Your task to perform on an android device: Search for sushi restaurants on Maps Image 0: 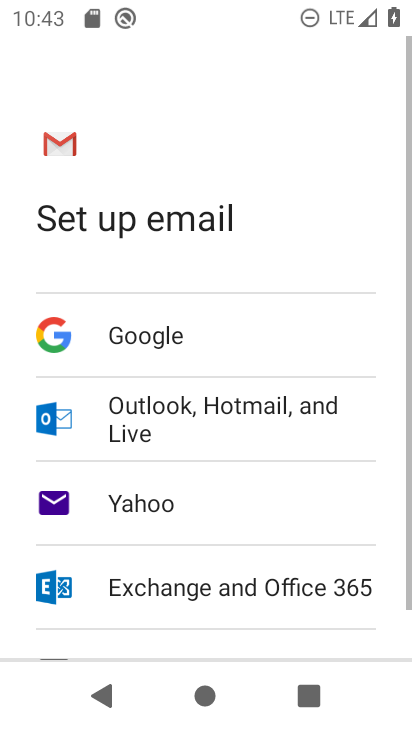
Step 0: press home button
Your task to perform on an android device: Search for sushi restaurants on Maps Image 1: 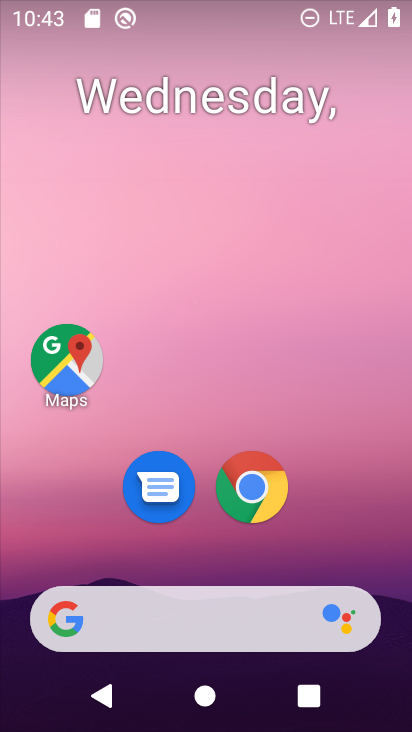
Step 1: click (55, 355)
Your task to perform on an android device: Search for sushi restaurants on Maps Image 2: 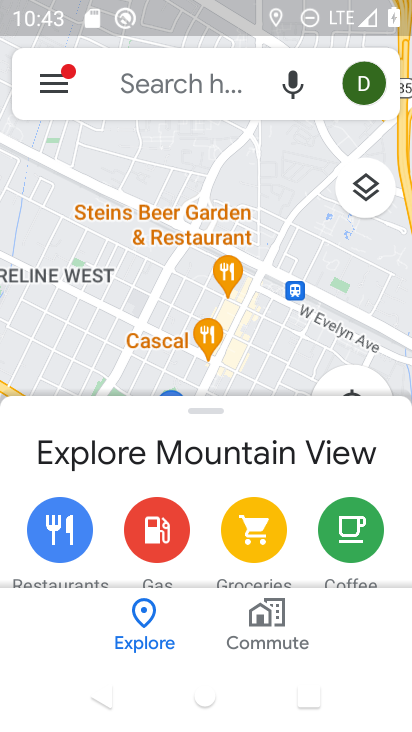
Step 2: click (53, 81)
Your task to perform on an android device: Search for sushi restaurants on Maps Image 3: 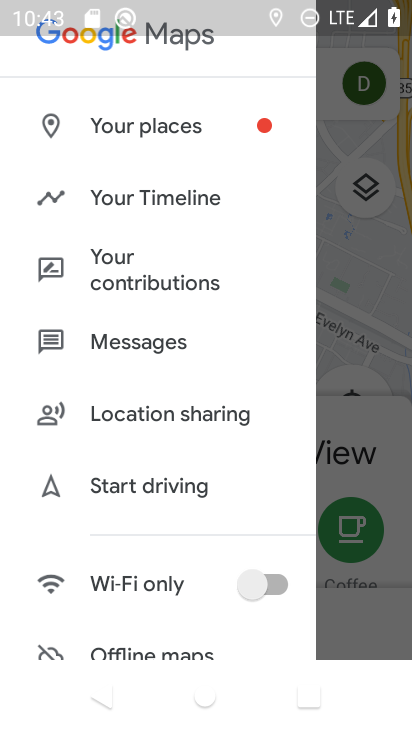
Step 3: drag from (165, 511) to (150, 156)
Your task to perform on an android device: Search for sushi restaurants on Maps Image 4: 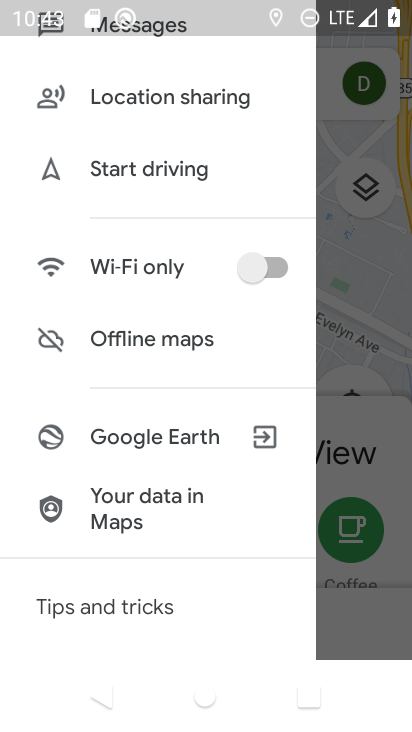
Step 4: drag from (156, 527) to (154, 185)
Your task to perform on an android device: Search for sushi restaurants on Maps Image 5: 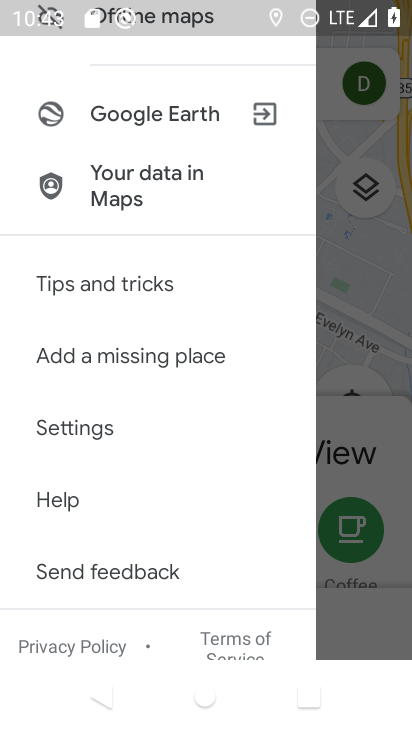
Step 5: drag from (154, 511) to (154, 237)
Your task to perform on an android device: Search for sushi restaurants on Maps Image 6: 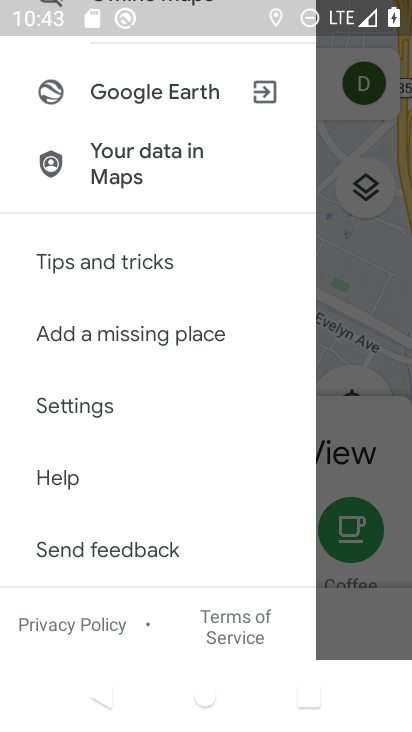
Step 6: click (66, 405)
Your task to perform on an android device: Search for sushi restaurants on Maps Image 7: 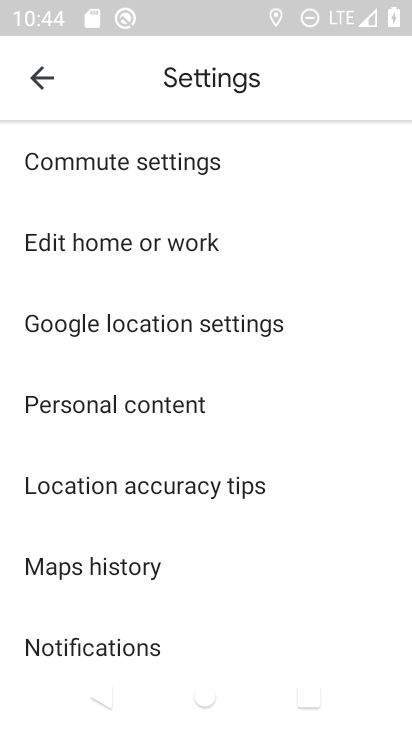
Step 7: click (49, 74)
Your task to perform on an android device: Search for sushi restaurants on Maps Image 8: 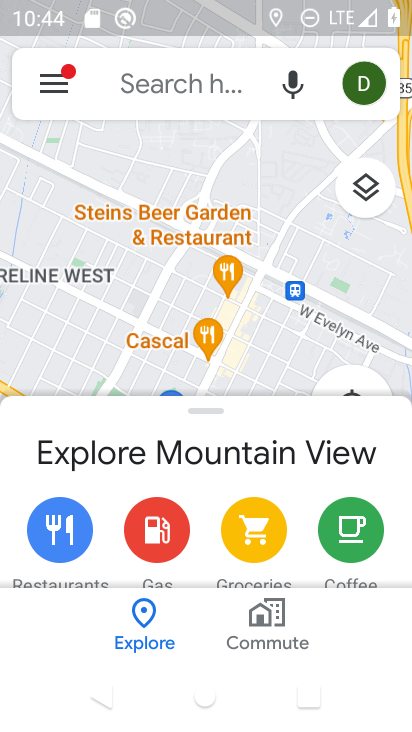
Step 8: click (140, 92)
Your task to perform on an android device: Search for sushi restaurants on Maps Image 9: 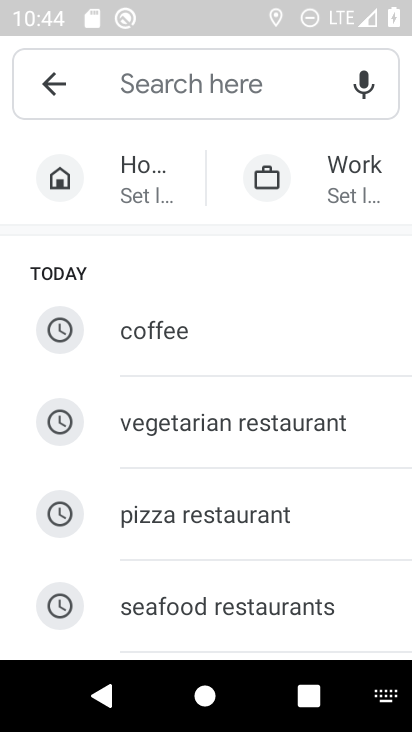
Step 9: click (189, 74)
Your task to perform on an android device: Search for sushi restaurants on Maps Image 10: 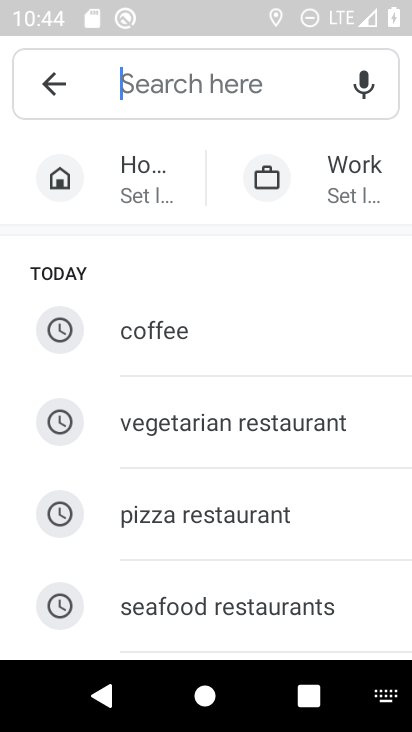
Step 10: type "sushi restaurants"
Your task to perform on an android device: Search for sushi restaurants on Maps Image 11: 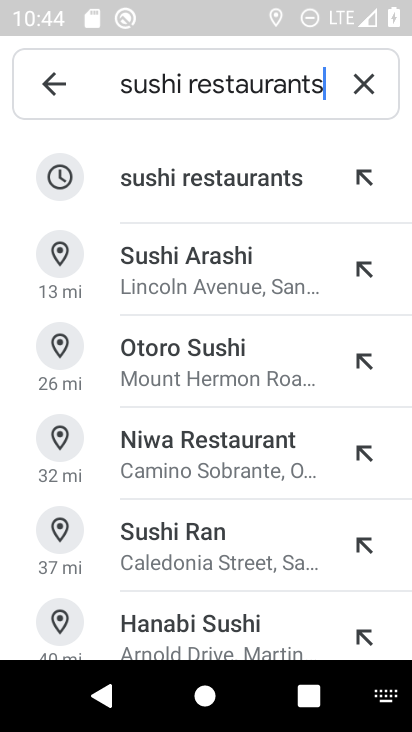
Step 11: click (258, 179)
Your task to perform on an android device: Search for sushi restaurants on Maps Image 12: 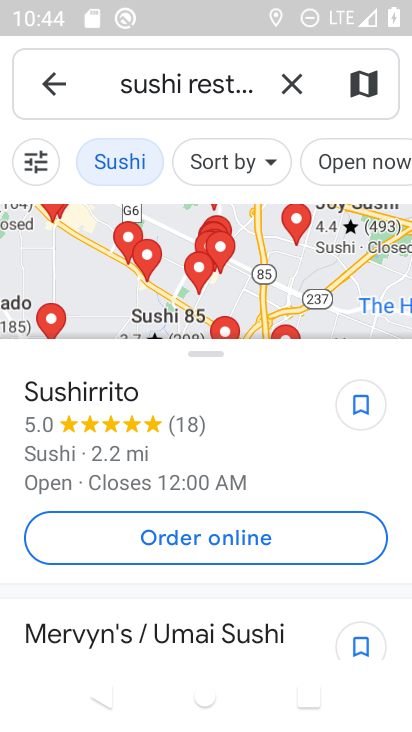
Step 12: task complete